Your task to perform on an android device: When is my next meeting? Image 0: 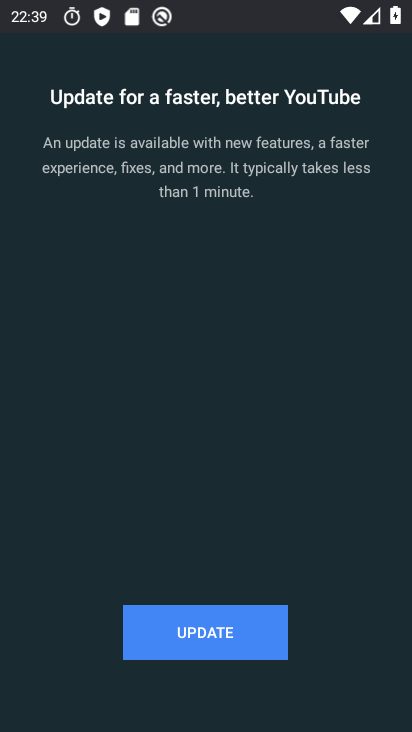
Step 0: press home button
Your task to perform on an android device: When is my next meeting? Image 1: 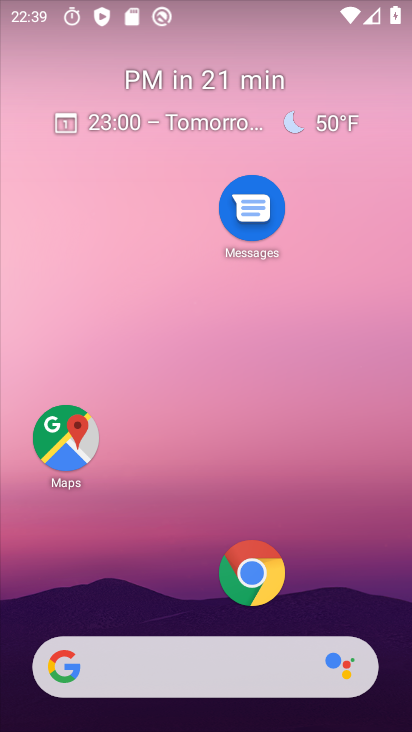
Step 1: drag from (188, 609) to (186, 57)
Your task to perform on an android device: When is my next meeting? Image 2: 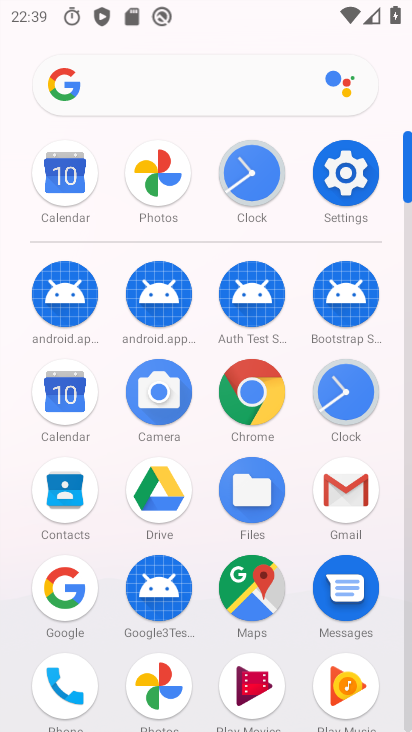
Step 2: click (69, 383)
Your task to perform on an android device: When is my next meeting? Image 3: 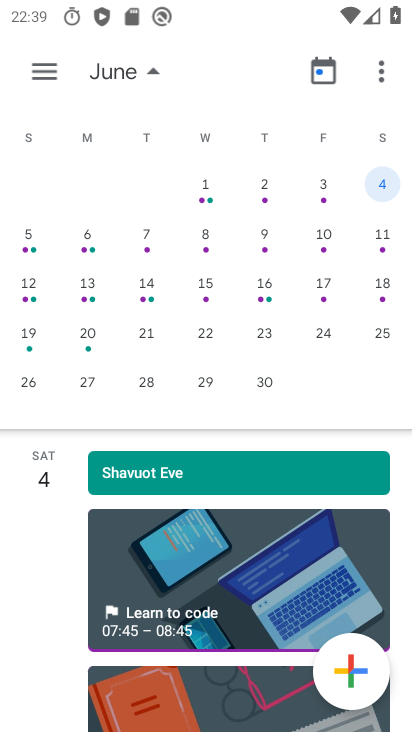
Step 3: drag from (87, 400) to (398, 364)
Your task to perform on an android device: When is my next meeting? Image 4: 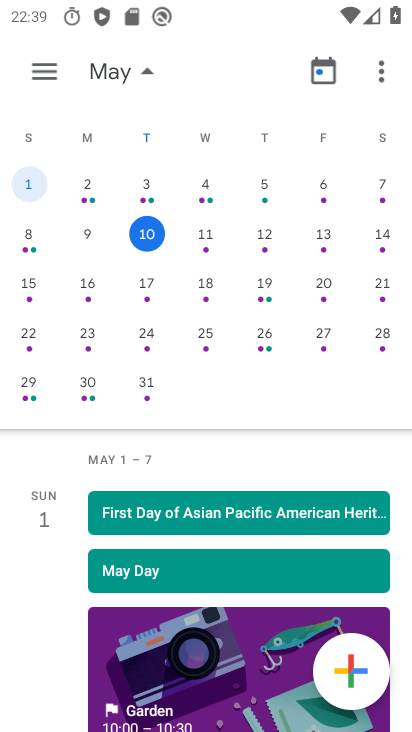
Step 4: click (262, 288)
Your task to perform on an android device: When is my next meeting? Image 5: 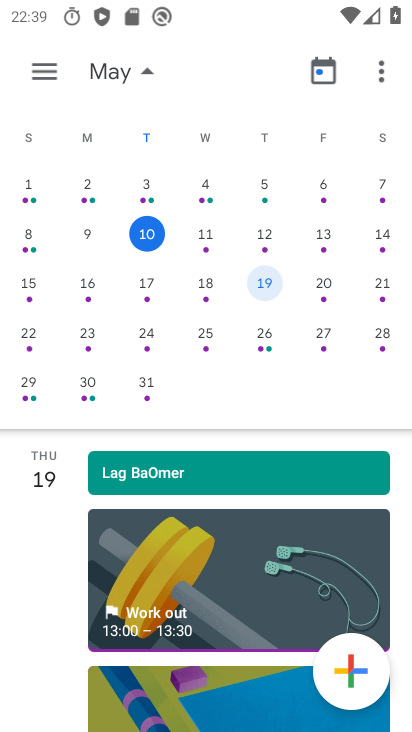
Step 5: task complete